Your task to perform on an android device: Go to Wikipedia Image 0: 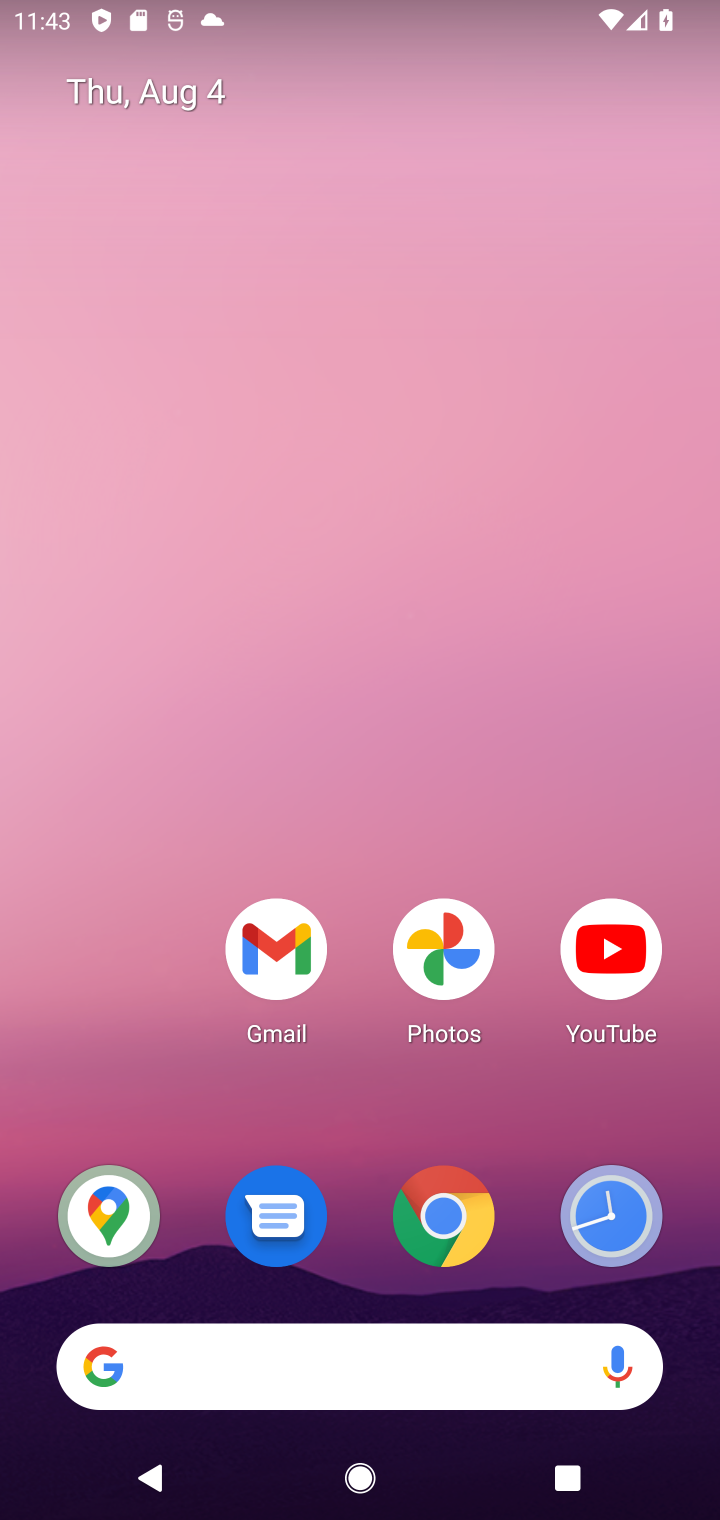
Step 0: click (453, 1215)
Your task to perform on an android device: Go to Wikipedia Image 1: 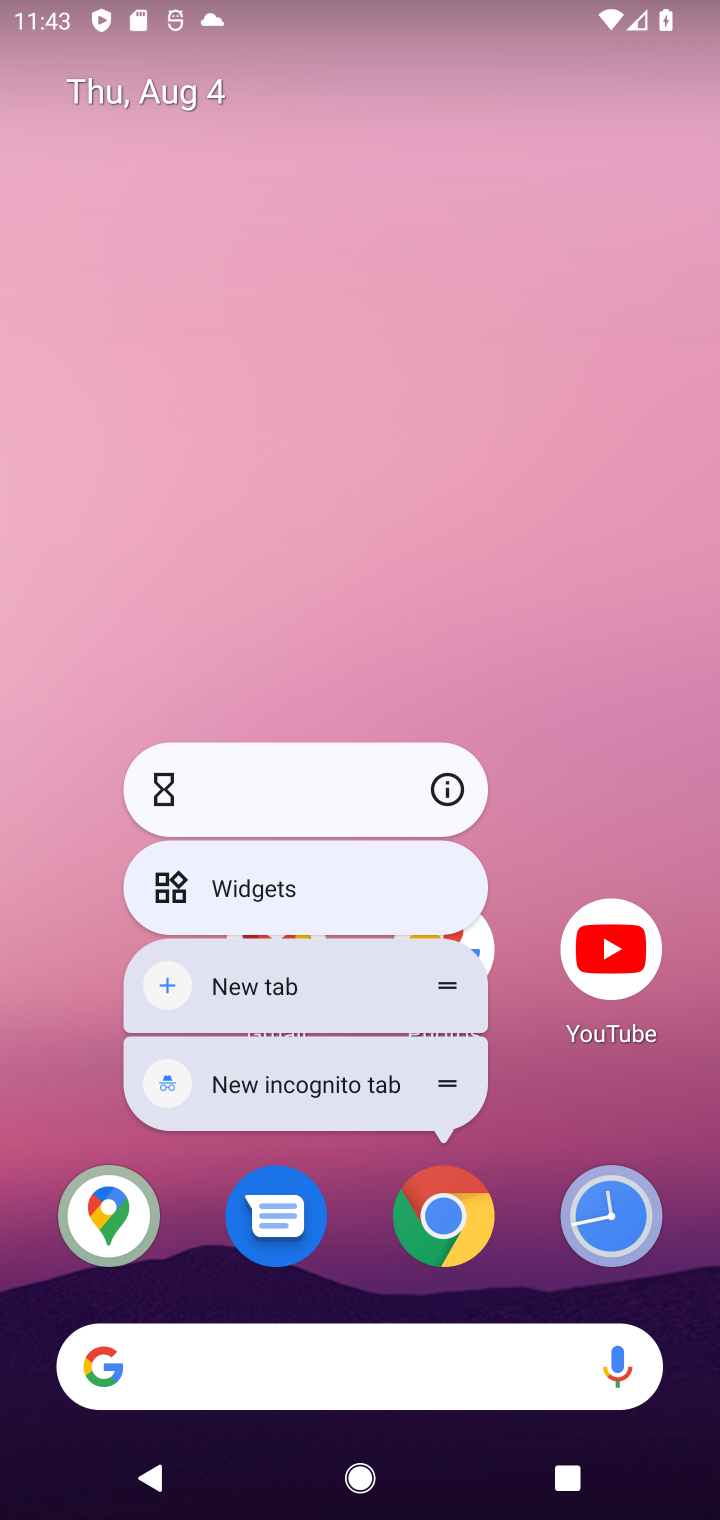
Step 1: click (443, 1222)
Your task to perform on an android device: Go to Wikipedia Image 2: 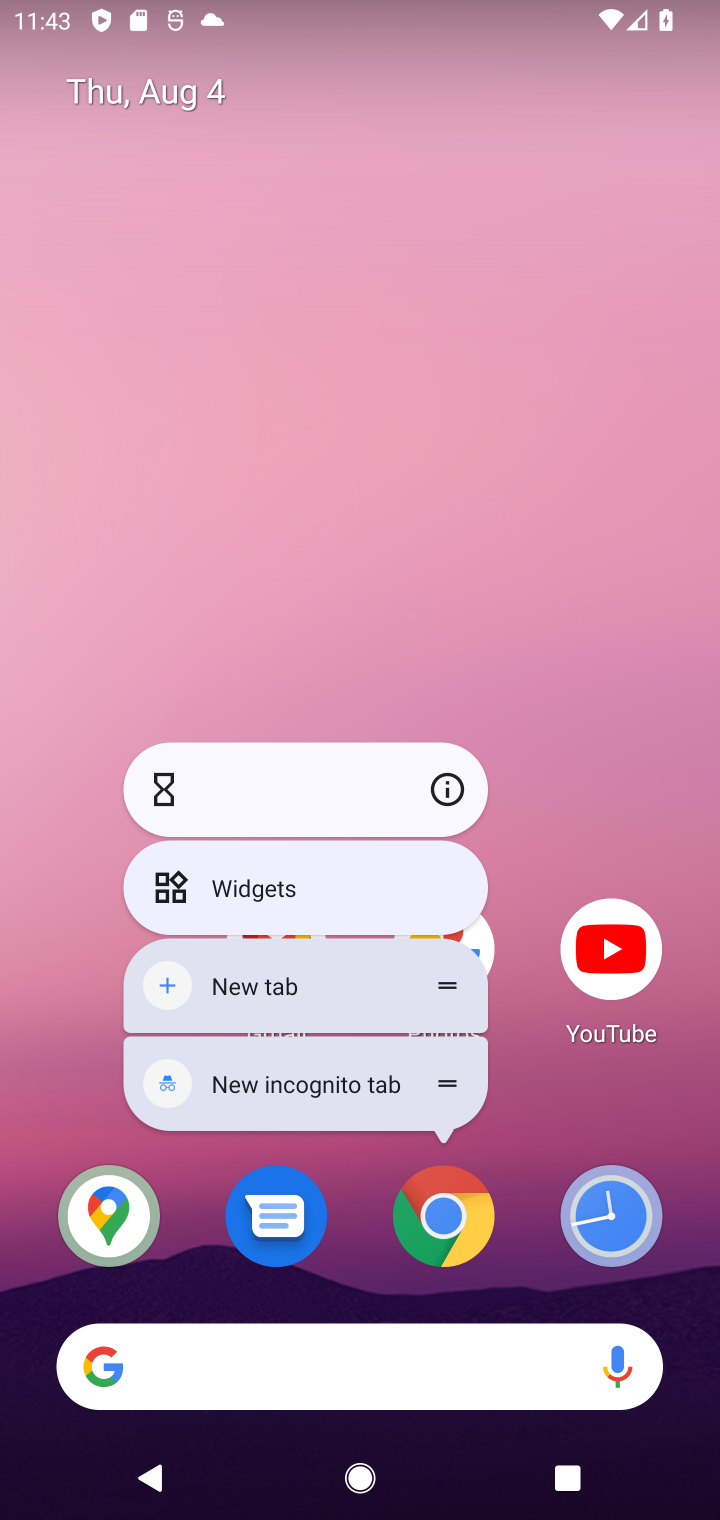
Step 2: click (443, 1222)
Your task to perform on an android device: Go to Wikipedia Image 3: 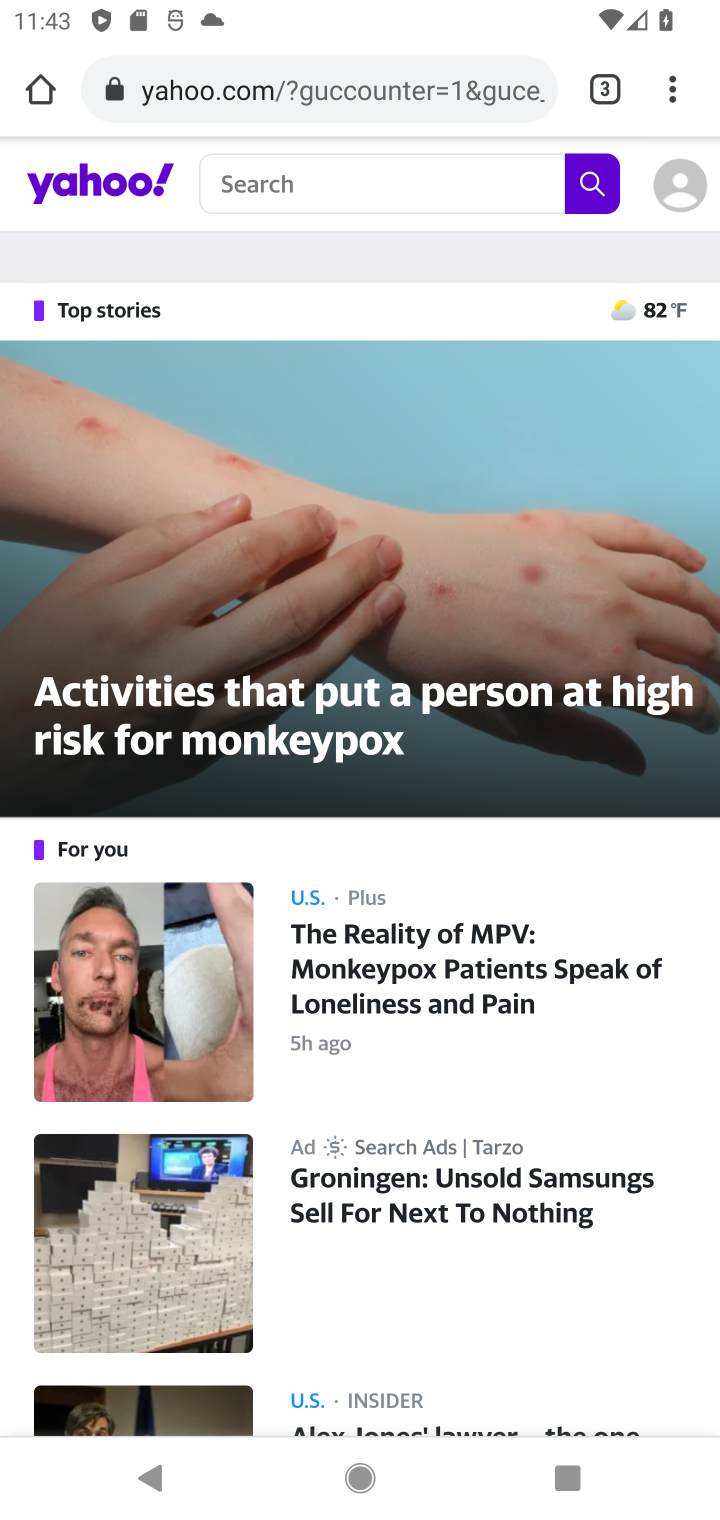
Step 3: click (511, 93)
Your task to perform on an android device: Go to Wikipedia Image 4: 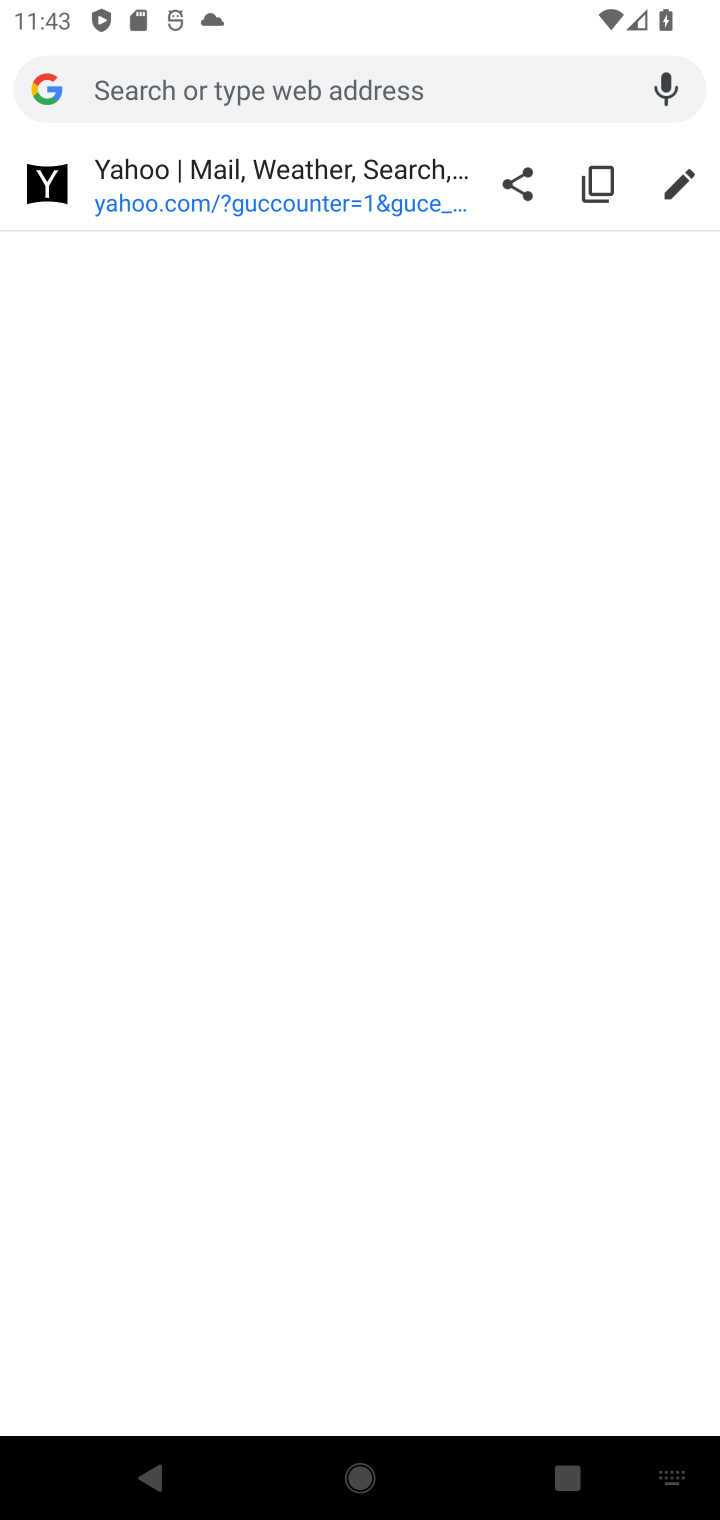
Step 4: type "Wikipedia"
Your task to perform on an android device: Go to Wikipedia Image 5: 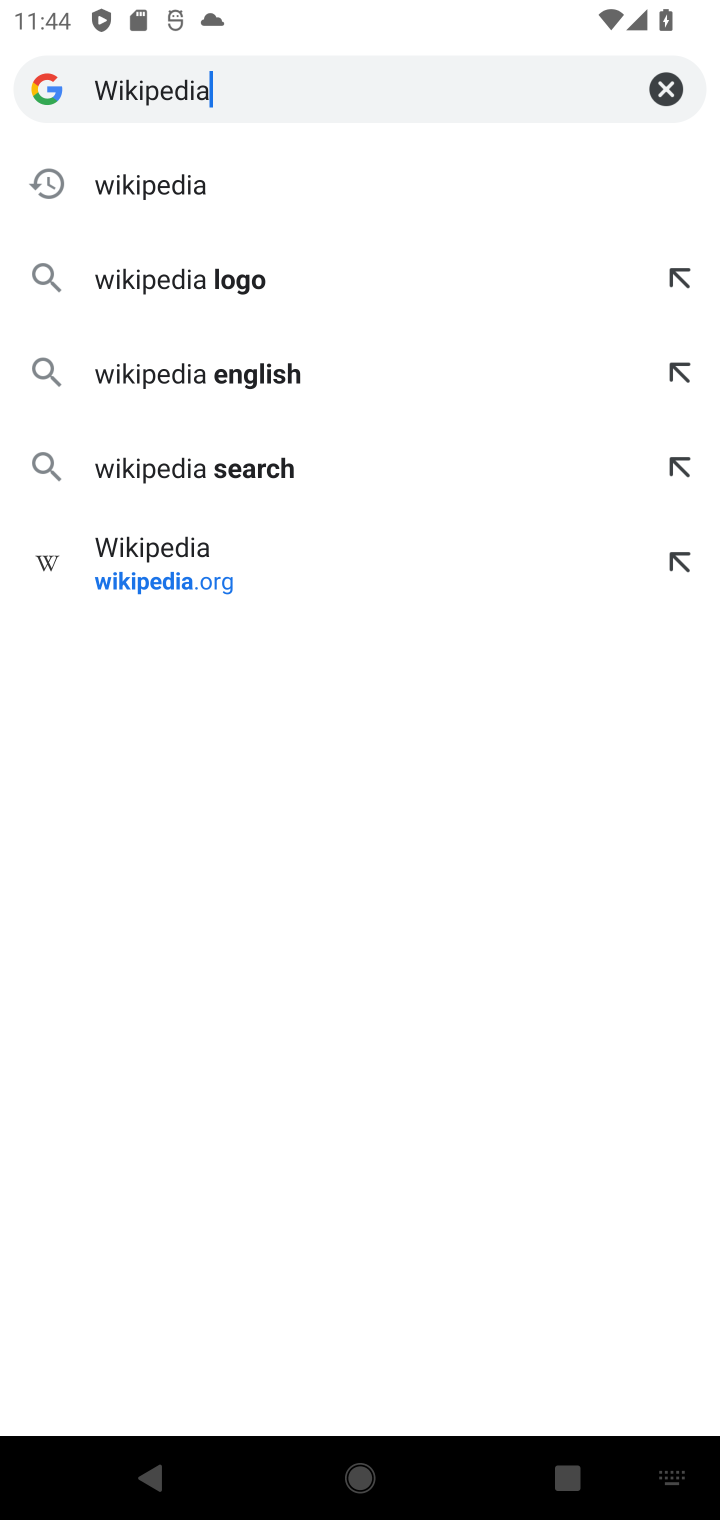
Step 5: click (207, 196)
Your task to perform on an android device: Go to Wikipedia Image 6: 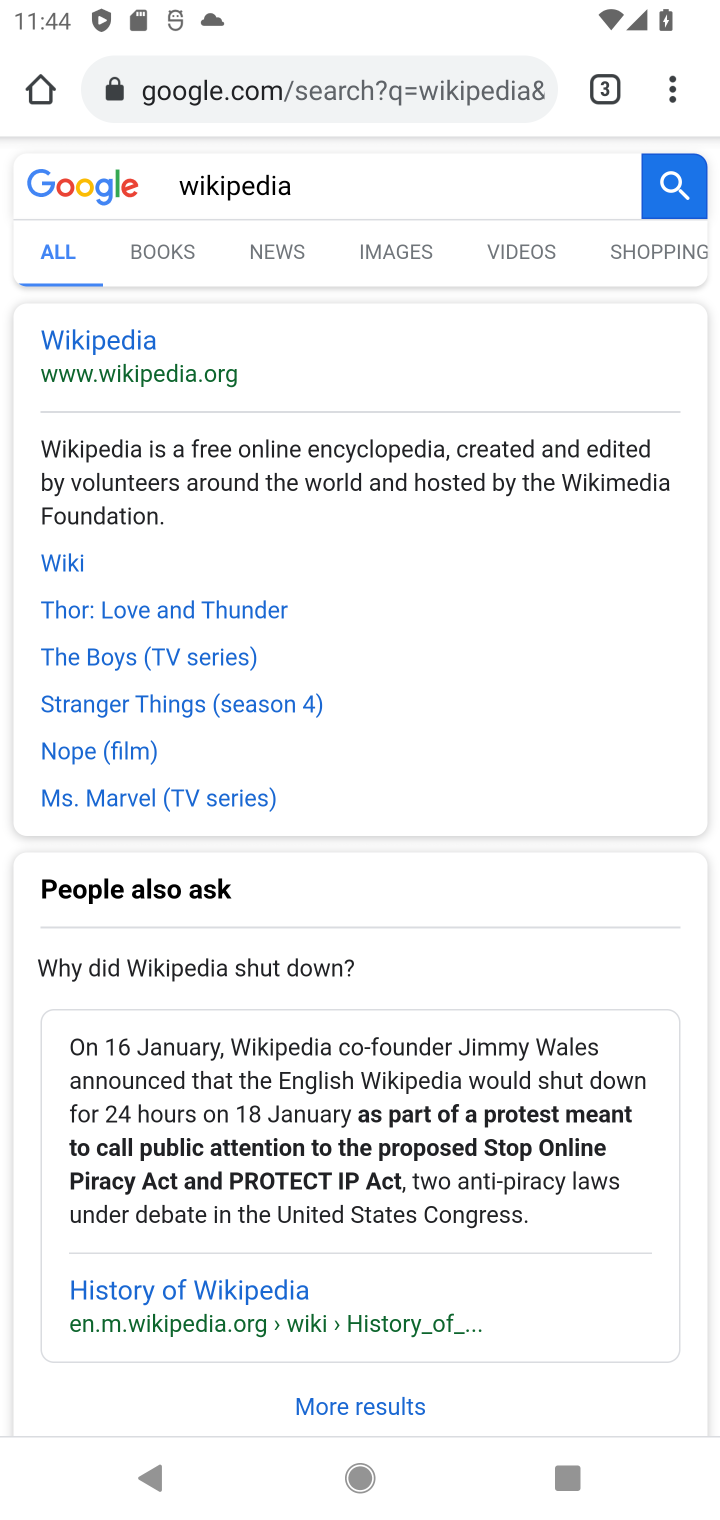
Step 6: click (119, 344)
Your task to perform on an android device: Go to Wikipedia Image 7: 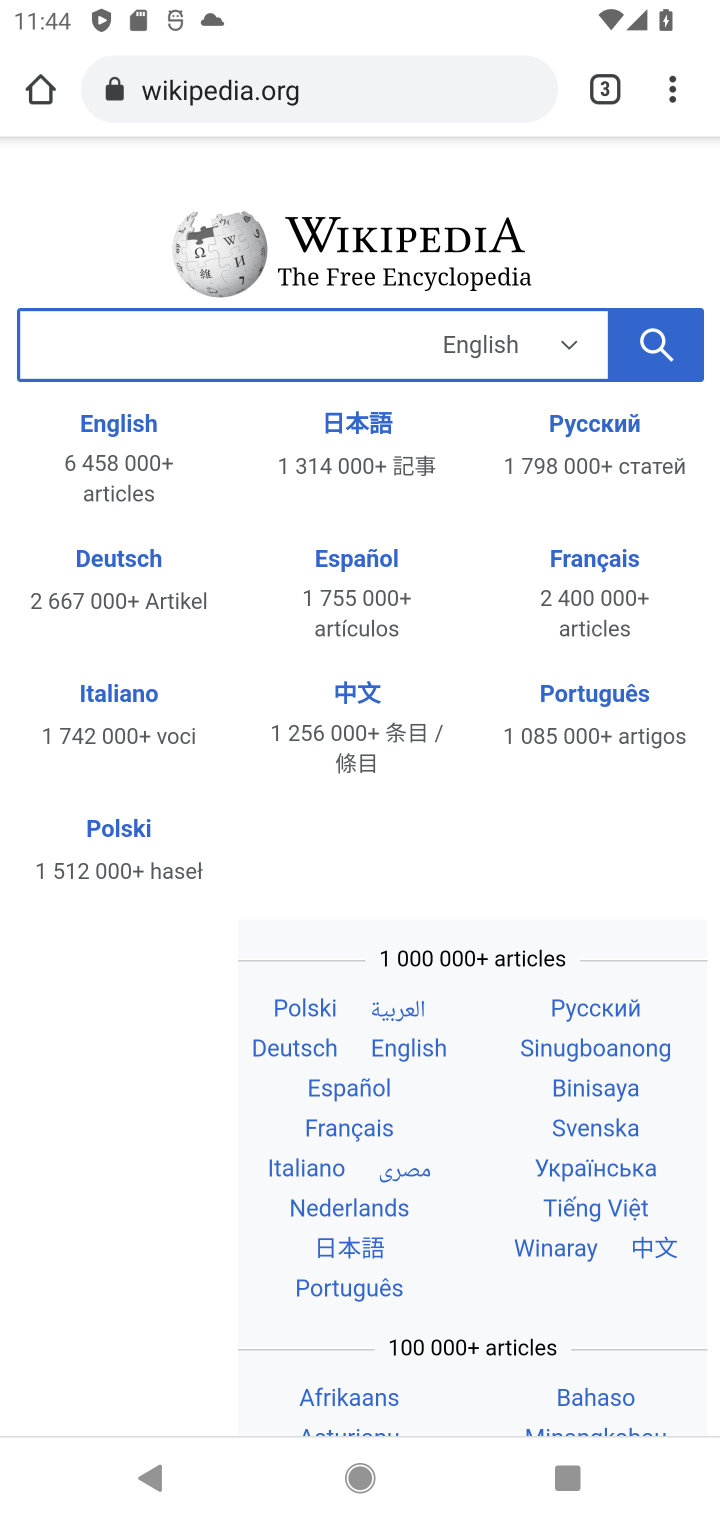
Step 7: task complete